Your task to perform on an android device: turn off priority inbox in the gmail app Image 0: 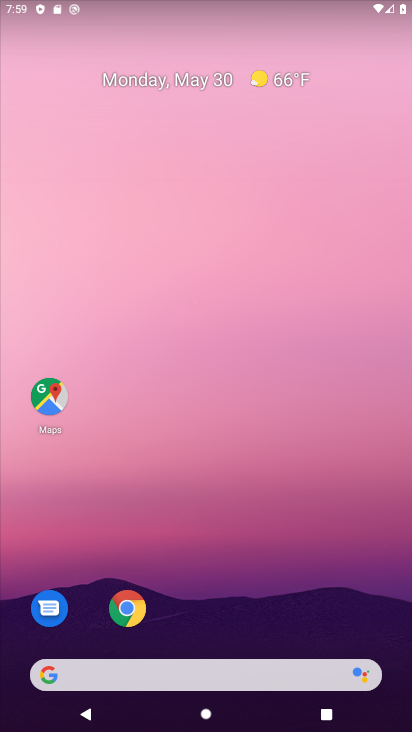
Step 0: drag from (225, 725) to (173, 58)
Your task to perform on an android device: turn off priority inbox in the gmail app Image 1: 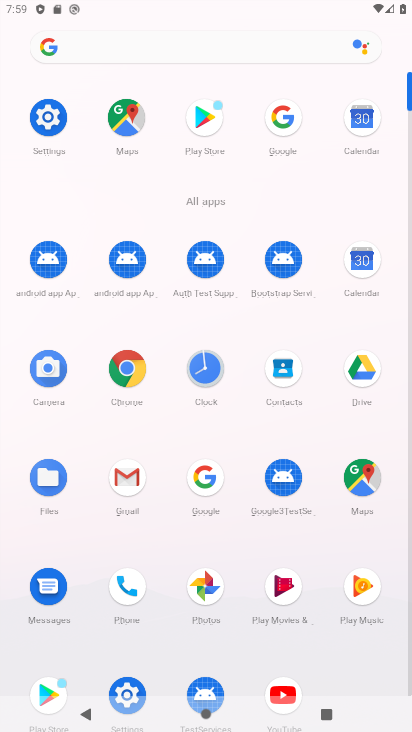
Step 1: click (129, 473)
Your task to perform on an android device: turn off priority inbox in the gmail app Image 2: 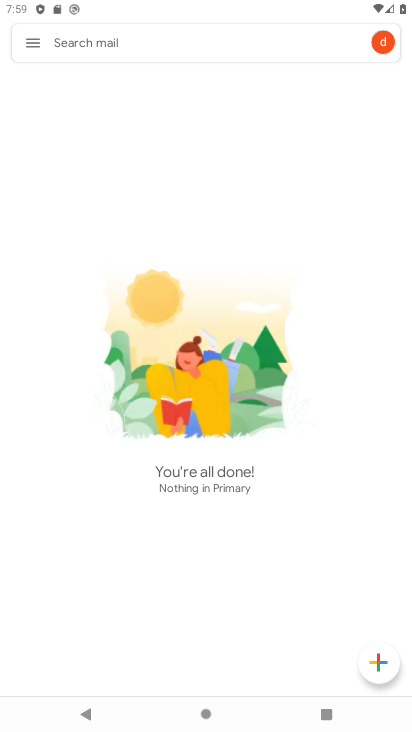
Step 2: click (31, 44)
Your task to perform on an android device: turn off priority inbox in the gmail app Image 3: 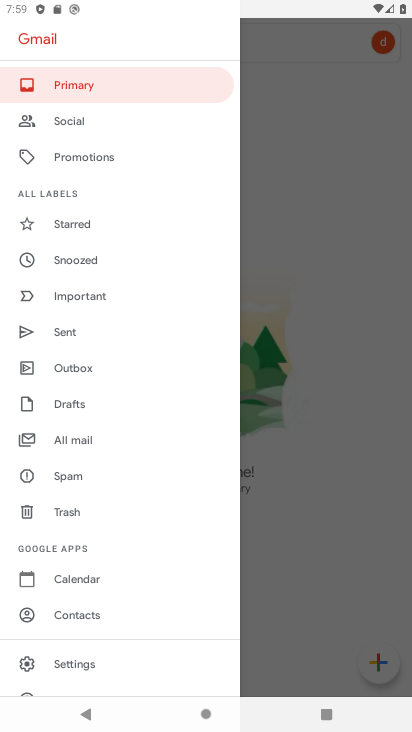
Step 3: click (81, 662)
Your task to perform on an android device: turn off priority inbox in the gmail app Image 4: 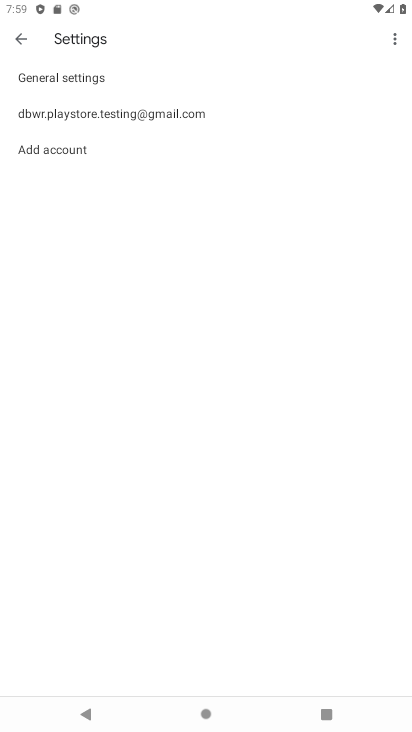
Step 4: click (148, 112)
Your task to perform on an android device: turn off priority inbox in the gmail app Image 5: 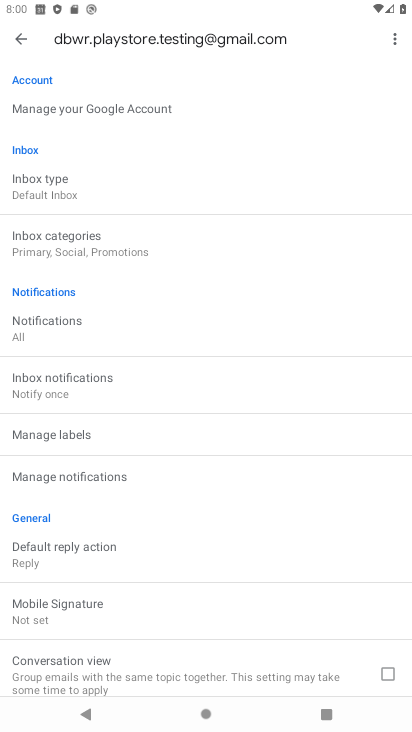
Step 5: click (32, 193)
Your task to perform on an android device: turn off priority inbox in the gmail app Image 6: 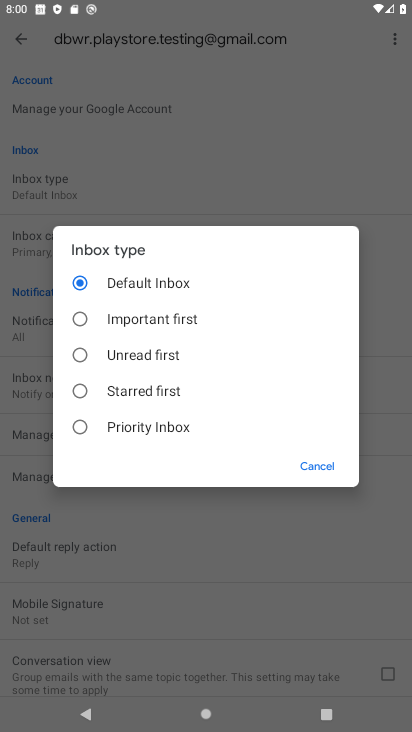
Step 6: task complete